Your task to perform on an android device: star an email in the gmail app Image 0: 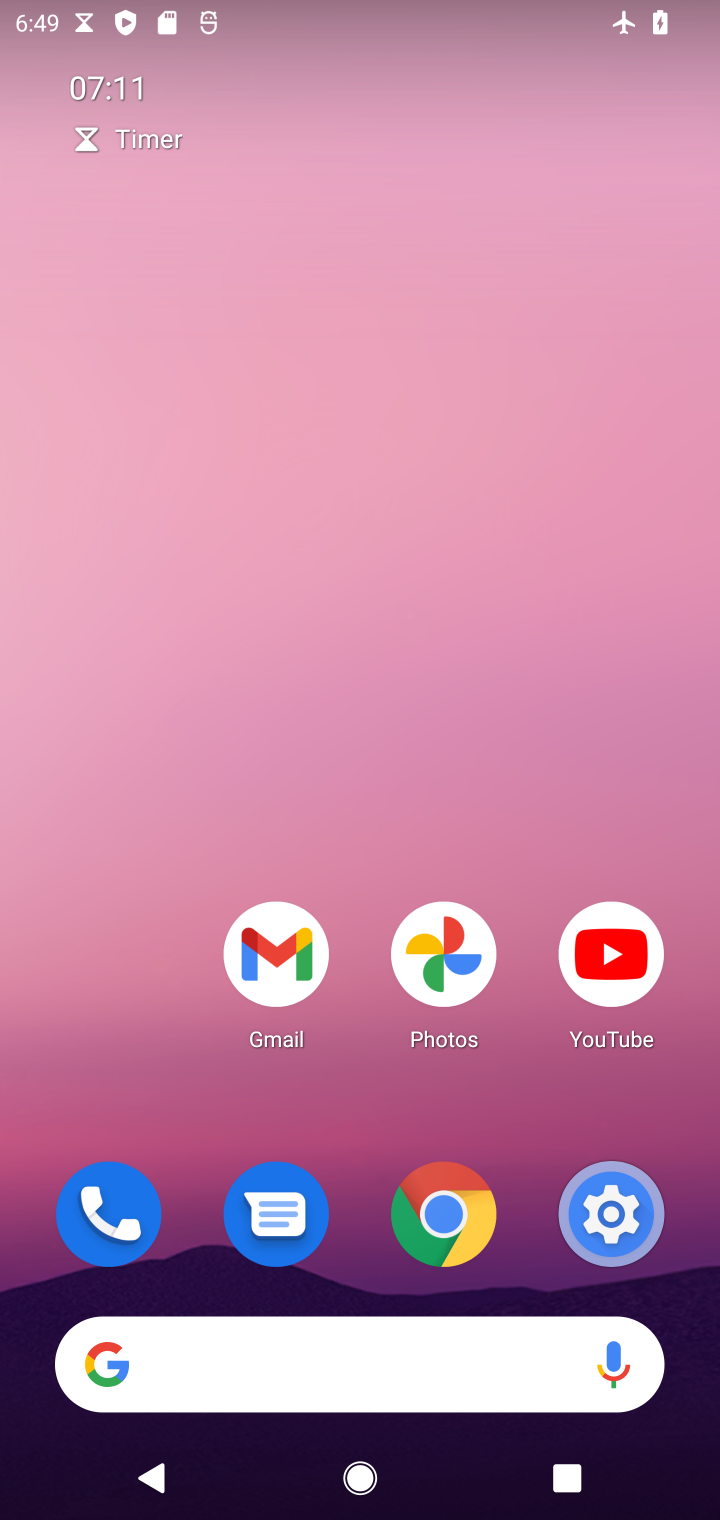
Step 0: click (298, 998)
Your task to perform on an android device: star an email in the gmail app Image 1: 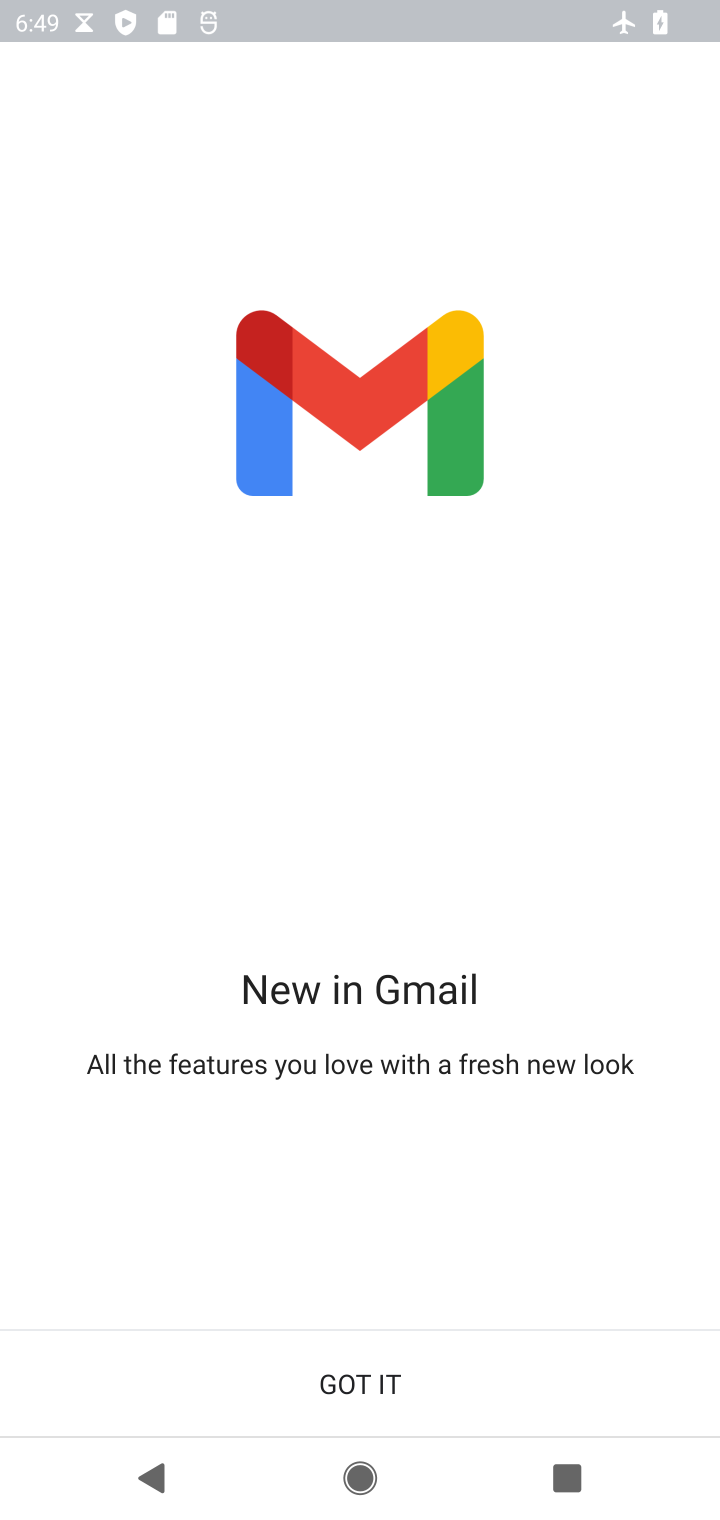
Step 1: click (404, 1395)
Your task to perform on an android device: star an email in the gmail app Image 2: 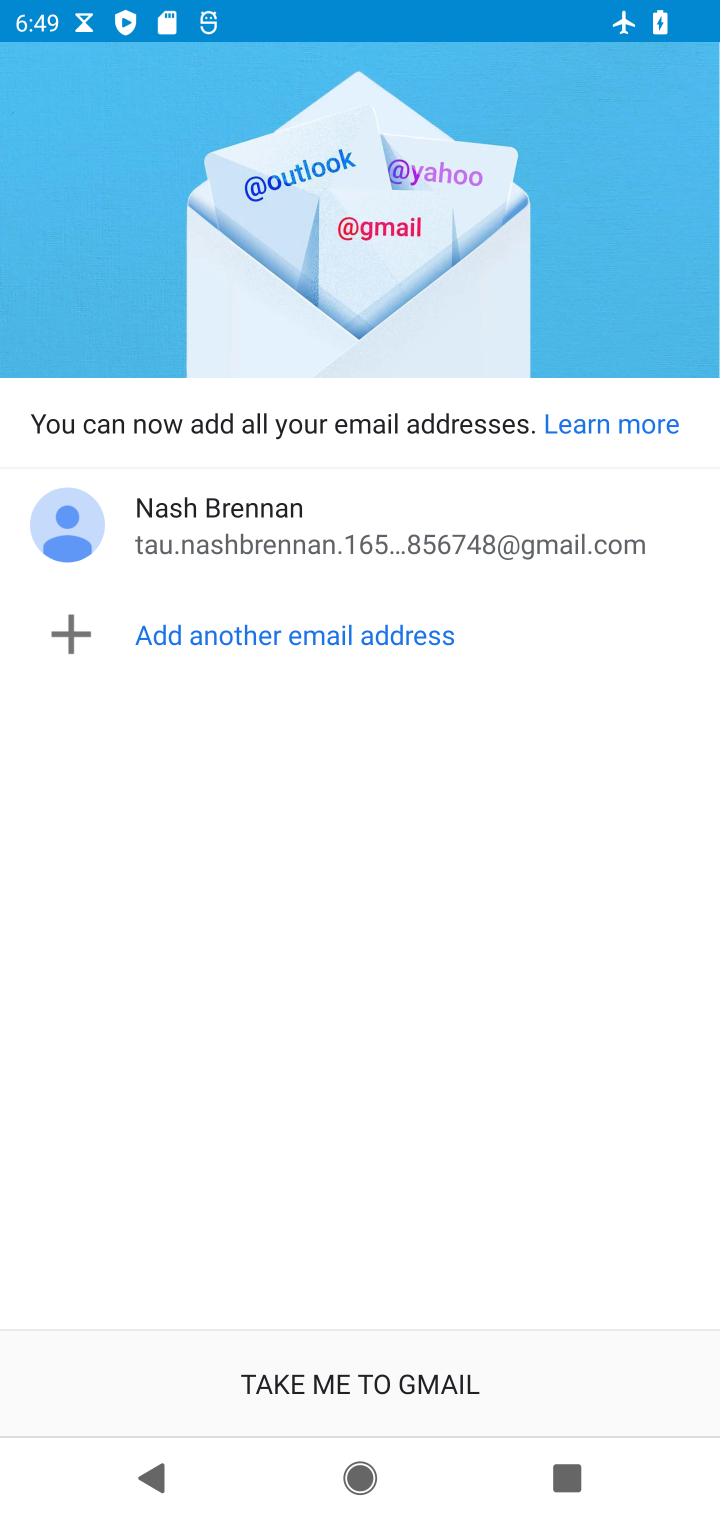
Step 2: click (408, 1380)
Your task to perform on an android device: star an email in the gmail app Image 3: 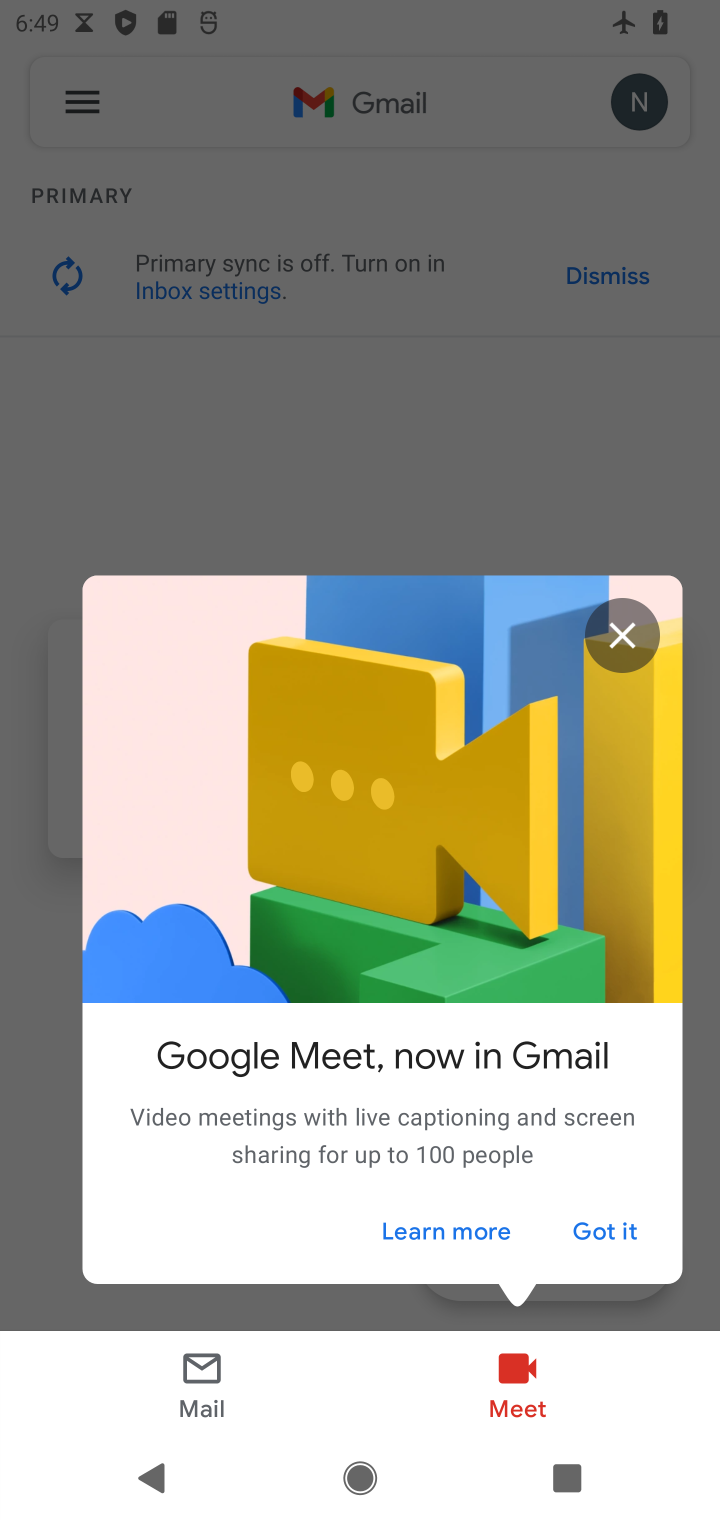
Step 3: click (625, 599)
Your task to perform on an android device: star an email in the gmail app Image 4: 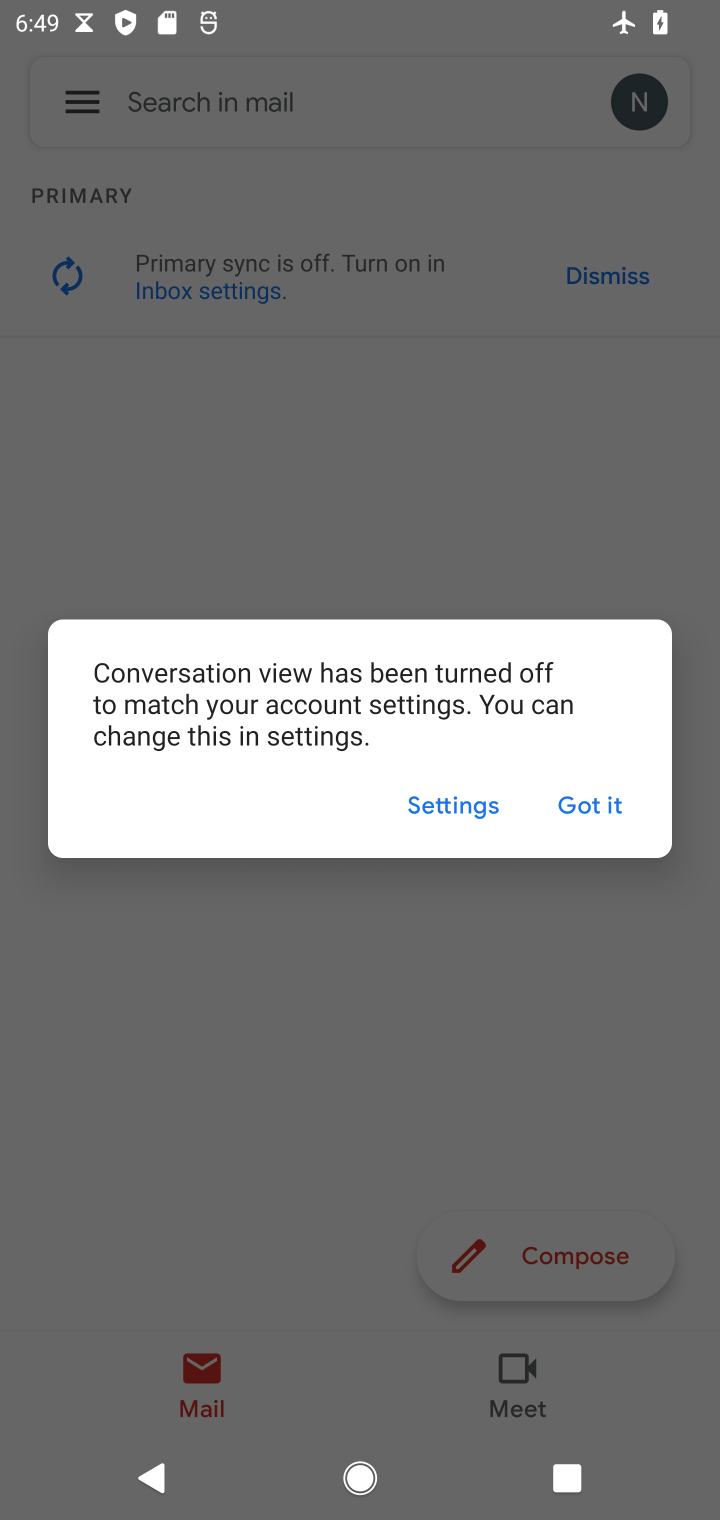
Step 4: click (598, 798)
Your task to perform on an android device: star an email in the gmail app Image 5: 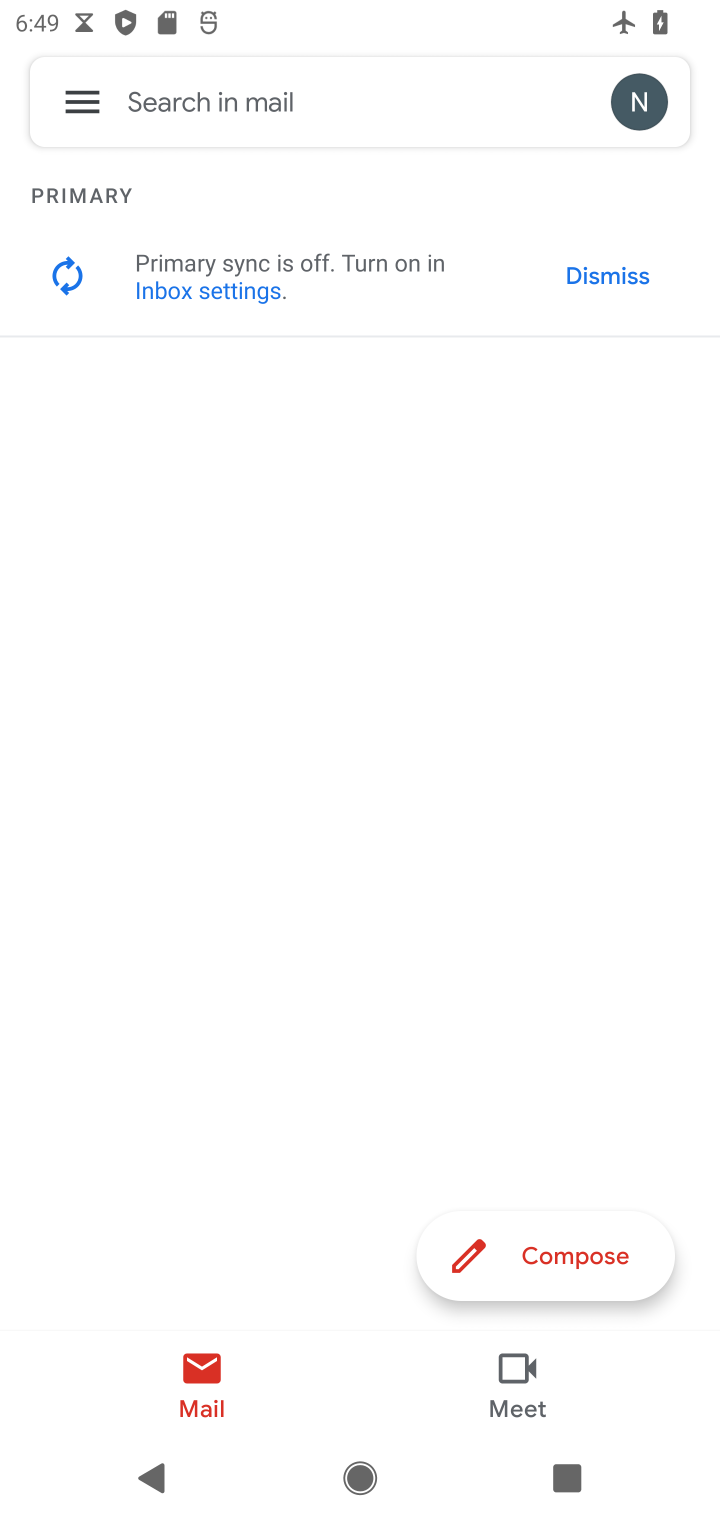
Step 5: task complete